Your task to perform on an android device: stop showing notifications on the lock screen Image 0: 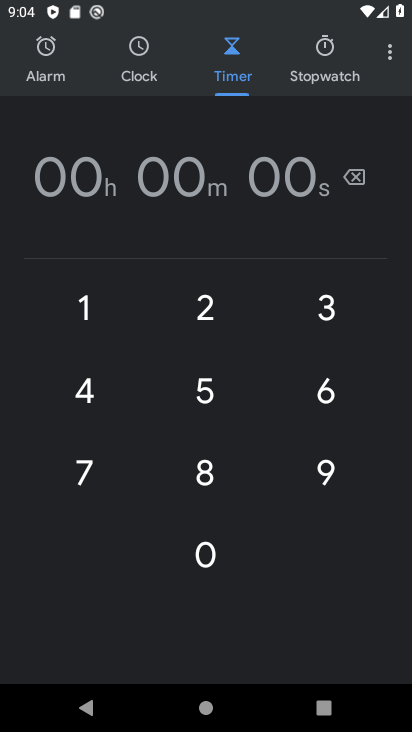
Step 0: press home button
Your task to perform on an android device: stop showing notifications on the lock screen Image 1: 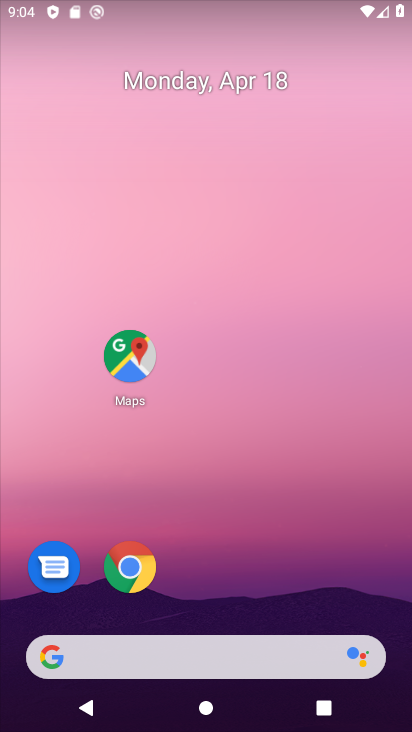
Step 1: drag from (272, 694) to (348, 342)
Your task to perform on an android device: stop showing notifications on the lock screen Image 2: 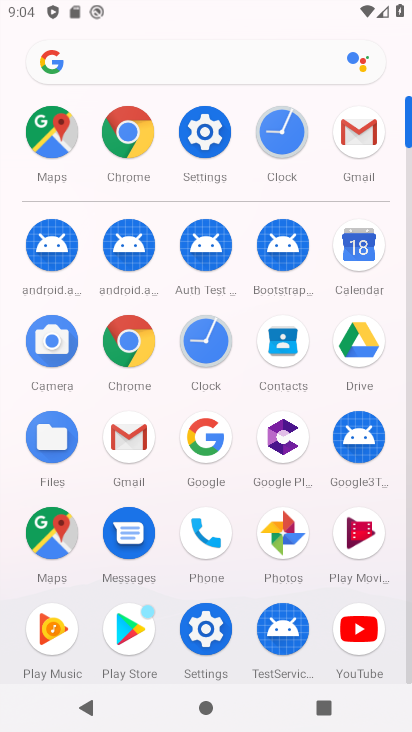
Step 2: click (216, 159)
Your task to perform on an android device: stop showing notifications on the lock screen Image 3: 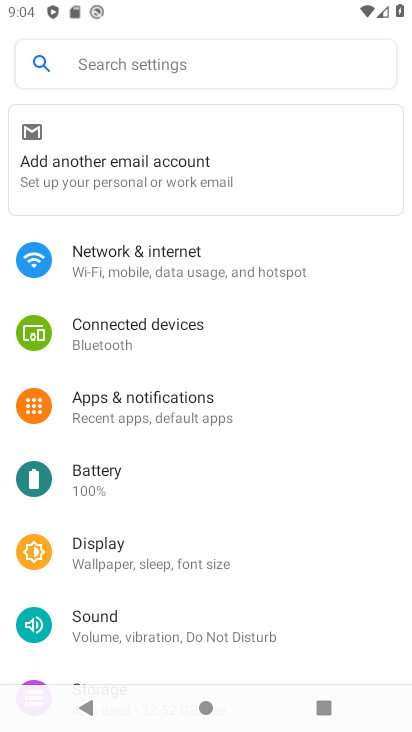
Step 3: click (135, 68)
Your task to perform on an android device: stop showing notifications on the lock screen Image 4: 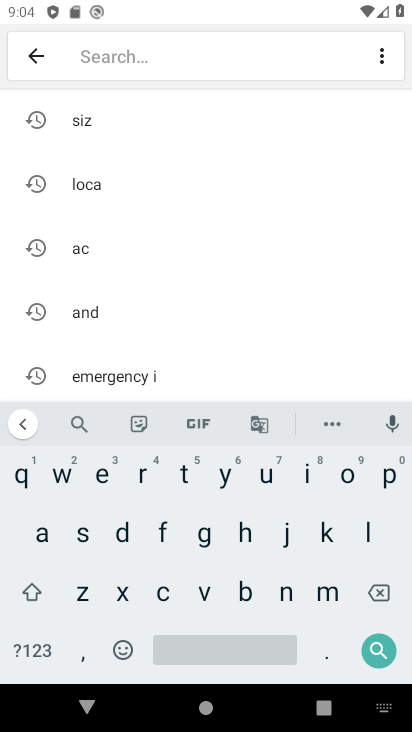
Step 4: click (372, 521)
Your task to perform on an android device: stop showing notifications on the lock screen Image 5: 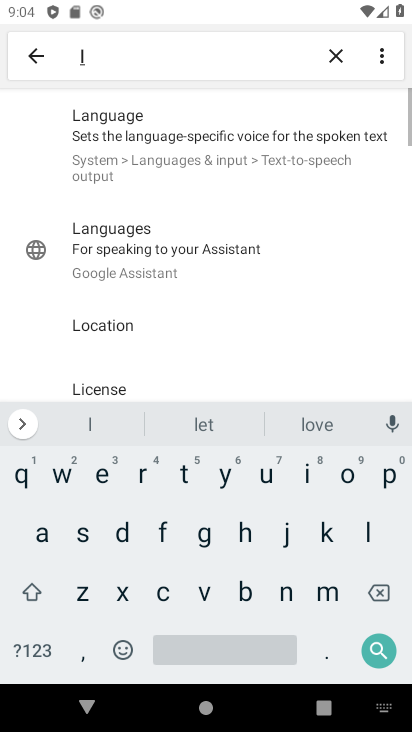
Step 5: click (343, 476)
Your task to perform on an android device: stop showing notifications on the lock screen Image 6: 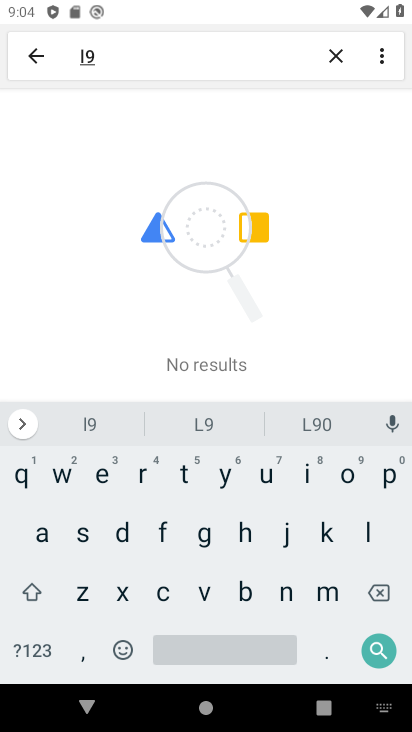
Step 6: click (152, 597)
Your task to perform on an android device: stop showing notifications on the lock screen Image 7: 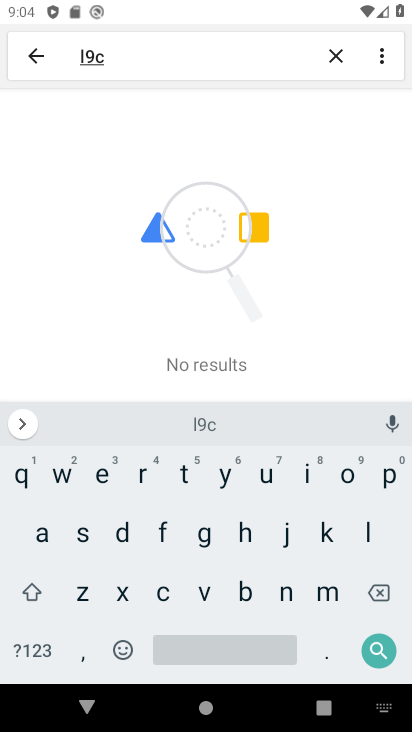
Step 7: click (376, 602)
Your task to perform on an android device: stop showing notifications on the lock screen Image 8: 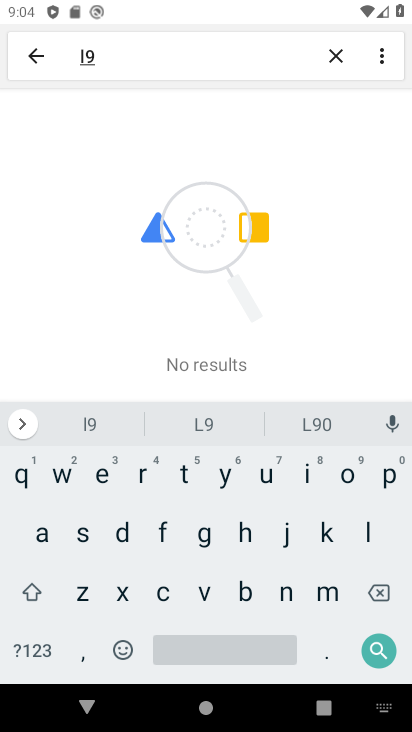
Step 8: click (380, 592)
Your task to perform on an android device: stop showing notifications on the lock screen Image 9: 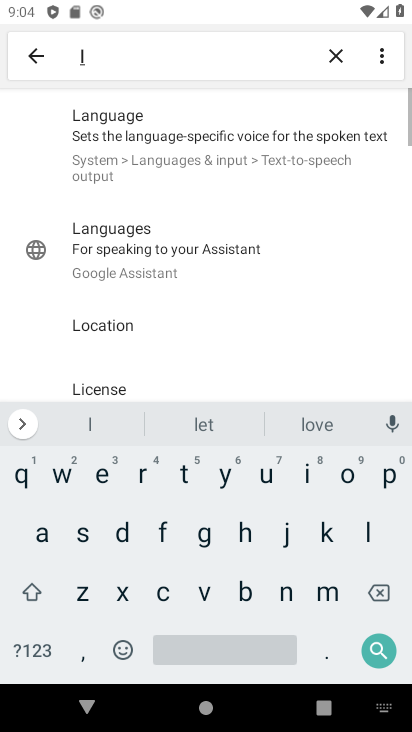
Step 9: click (349, 475)
Your task to perform on an android device: stop showing notifications on the lock screen Image 10: 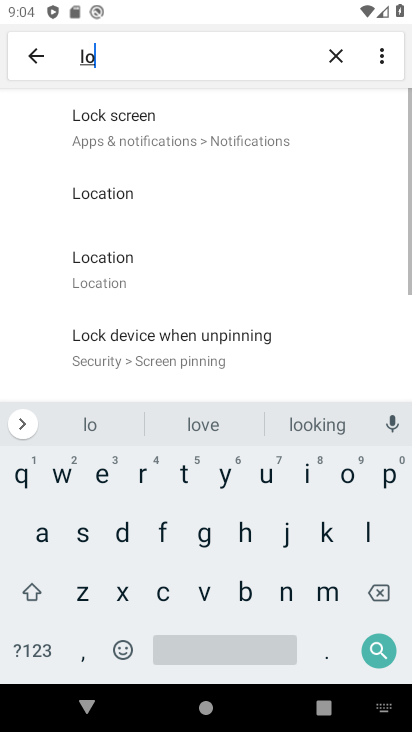
Step 10: click (165, 591)
Your task to perform on an android device: stop showing notifications on the lock screen Image 11: 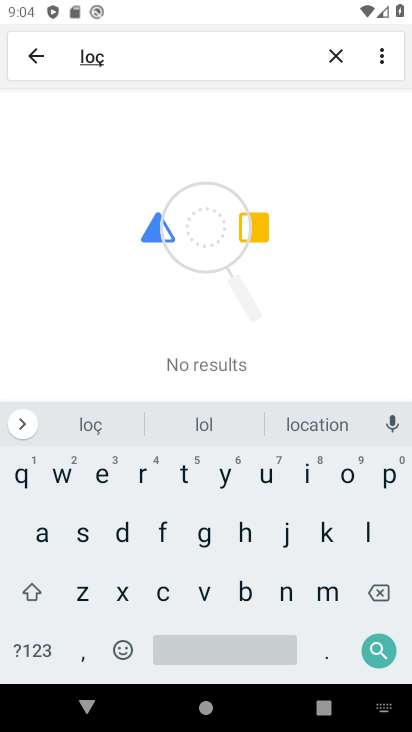
Step 11: click (375, 592)
Your task to perform on an android device: stop showing notifications on the lock screen Image 12: 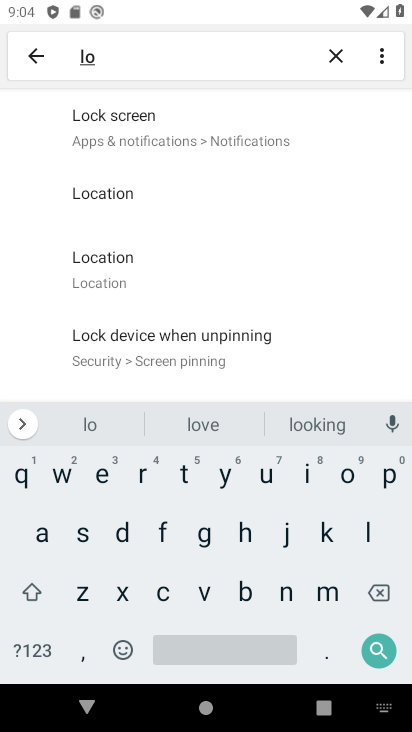
Step 12: click (200, 148)
Your task to perform on an android device: stop showing notifications on the lock screen Image 13: 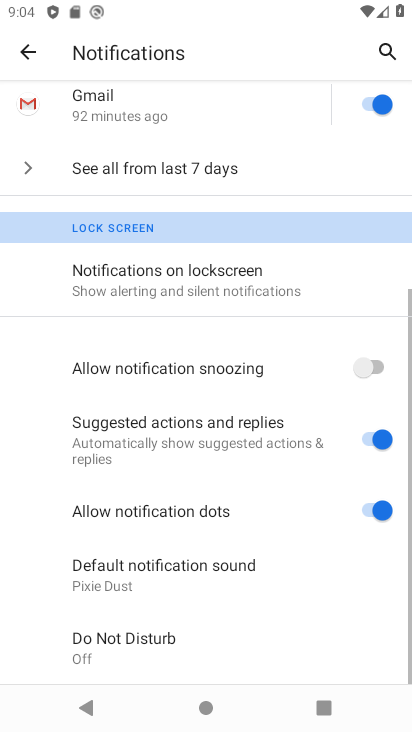
Step 13: click (145, 273)
Your task to perform on an android device: stop showing notifications on the lock screen Image 14: 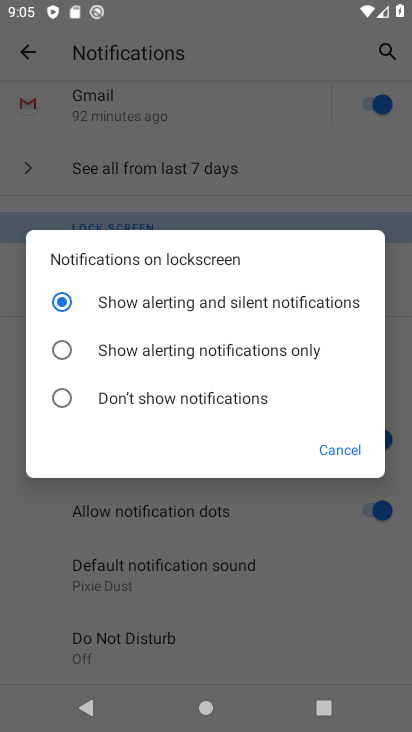
Step 14: click (106, 395)
Your task to perform on an android device: stop showing notifications on the lock screen Image 15: 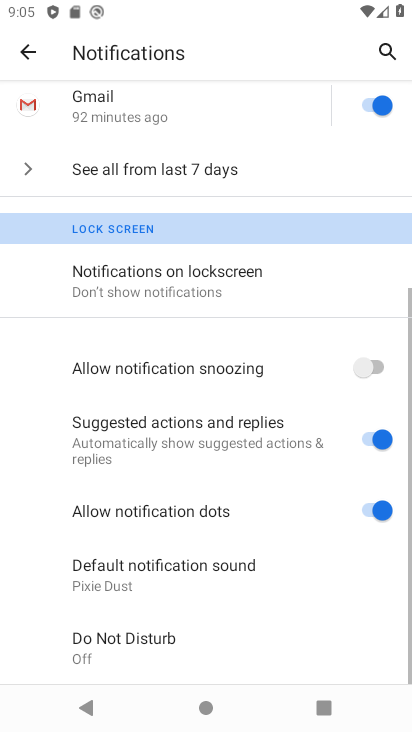
Step 15: task complete